Your task to perform on an android device: Do I have any events today? Image 0: 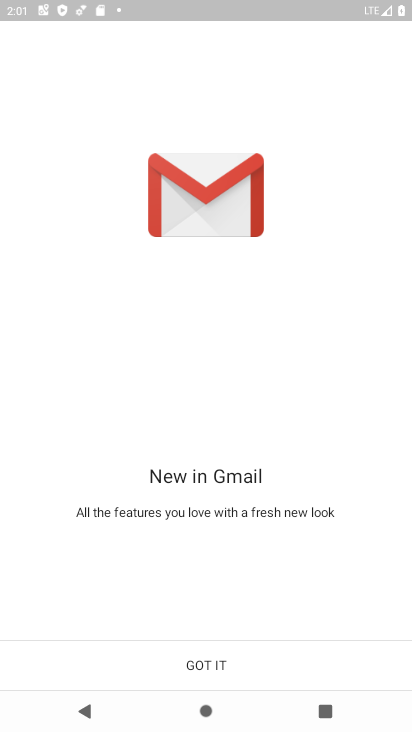
Step 0: press home button
Your task to perform on an android device: Do I have any events today? Image 1: 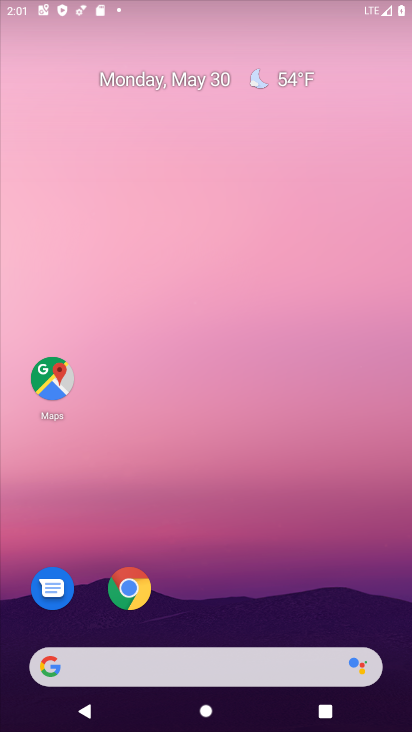
Step 1: drag from (173, 600) to (281, 72)
Your task to perform on an android device: Do I have any events today? Image 2: 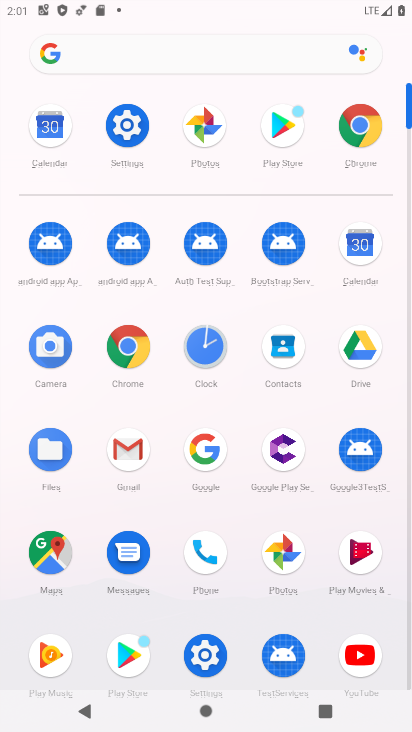
Step 2: click (364, 244)
Your task to perform on an android device: Do I have any events today? Image 3: 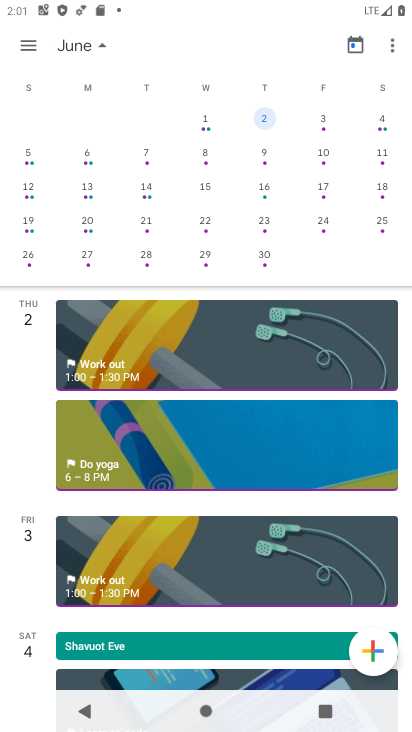
Step 3: drag from (41, 254) to (399, 224)
Your task to perform on an android device: Do I have any events today? Image 4: 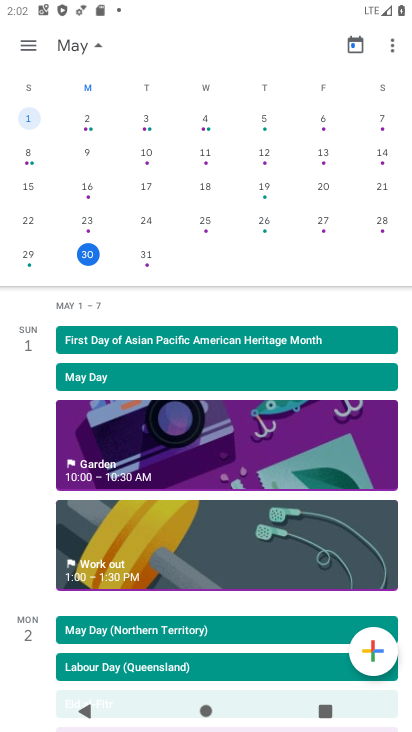
Step 4: click (95, 258)
Your task to perform on an android device: Do I have any events today? Image 5: 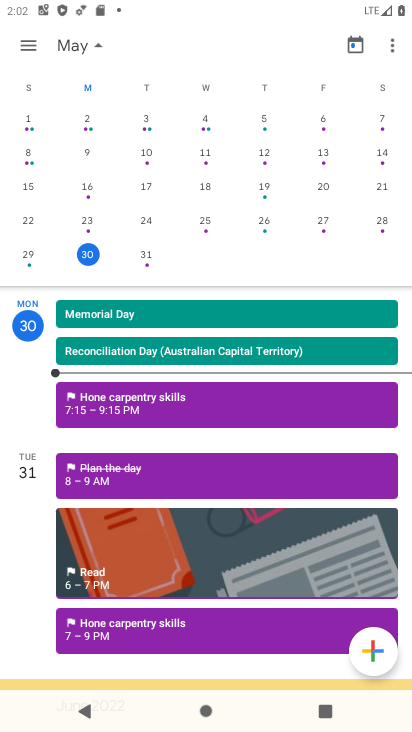
Step 5: task complete